Your task to perform on an android device: turn on data saver in the chrome app Image 0: 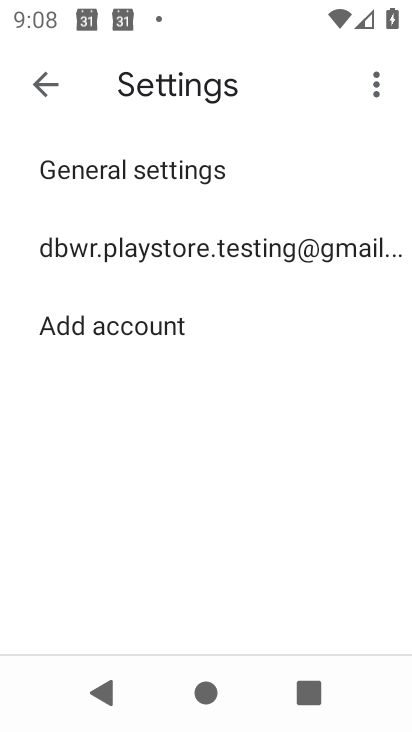
Step 0: press home button
Your task to perform on an android device: turn on data saver in the chrome app Image 1: 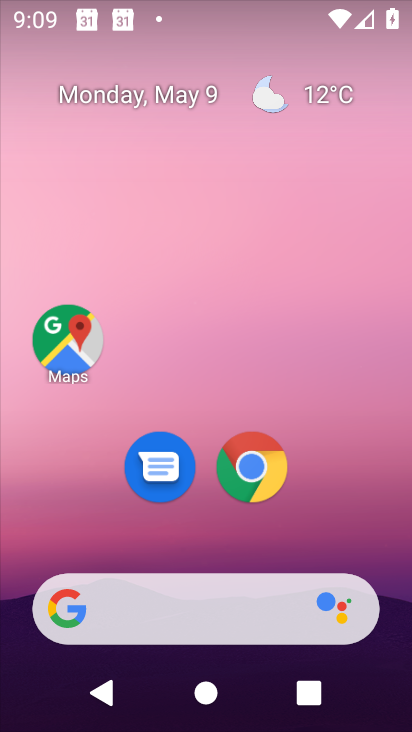
Step 1: click (263, 476)
Your task to perform on an android device: turn on data saver in the chrome app Image 2: 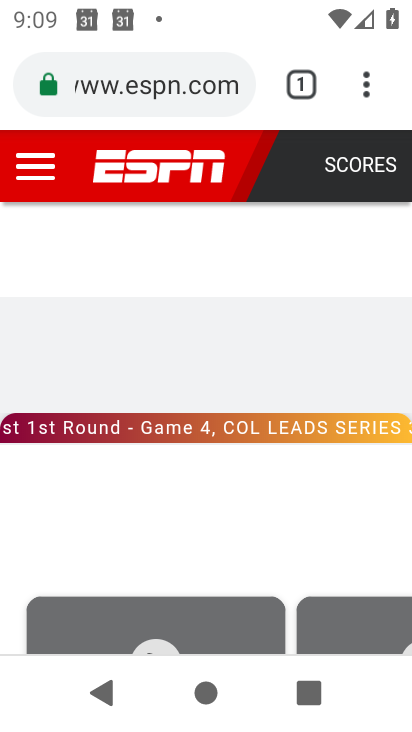
Step 2: click (369, 84)
Your task to perform on an android device: turn on data saver in the chrome app Image 3: 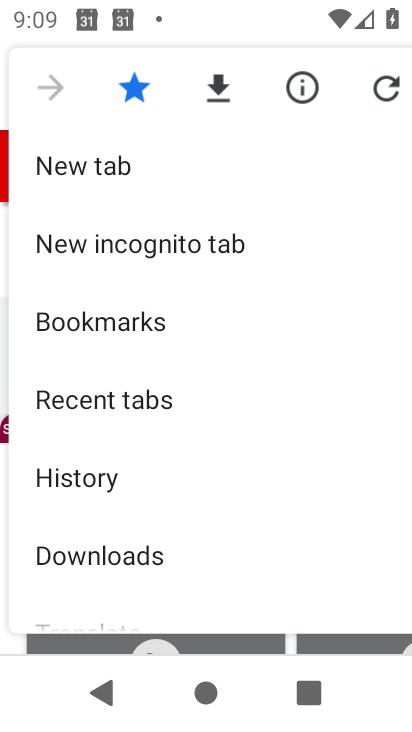
Step 3: drag from (226, 533) to (220, 131)
Your task to perform on an android device: turn on data saver in the chrome app Image 4: 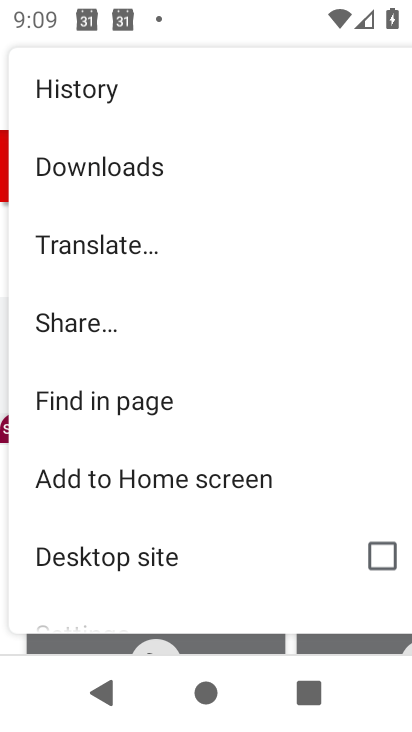
Step 4: drag from (203, 541) to (209, 131)
Your task to perform on an android device: turn on data saver in the chrome app Image 5: 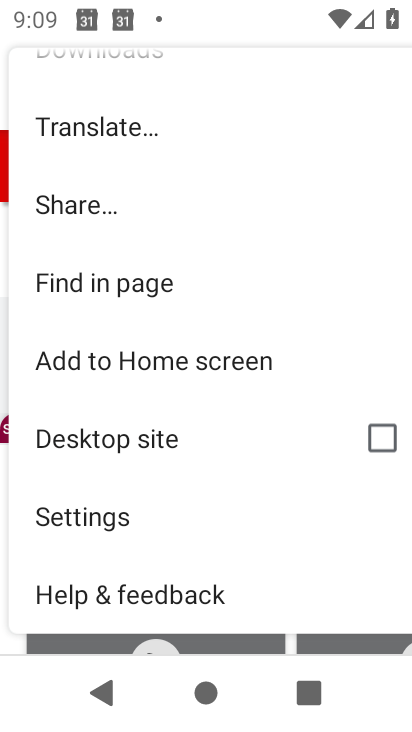
Step 5: click (98, 517)
Your task to perform on an android device: turn on data saver in the chrome app Image 6: 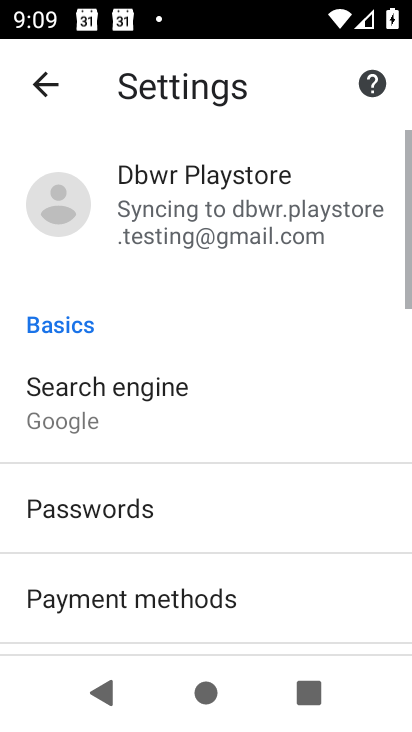
Step 6: drag from (208, 543) to (198, 126)
Your task to perform on an android device: turn on data saver in the chrome app Image 7: 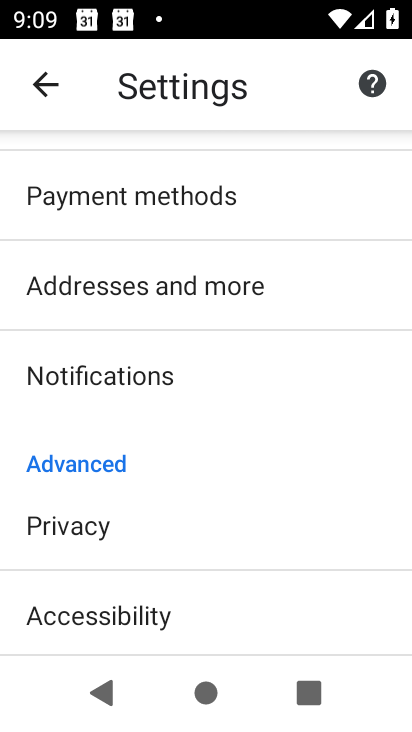
Step 7: drag from (177, 470) to (181, 114)
Your task to perform on an android device: turn on data saver in the chrome app Image 8: 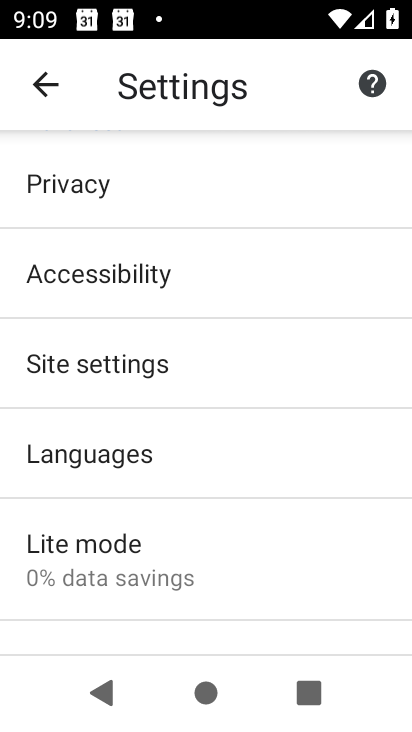
Step 8: click (109, 547)
Your task to perform on an android device: turn on data saver in the chrome app Image 9: 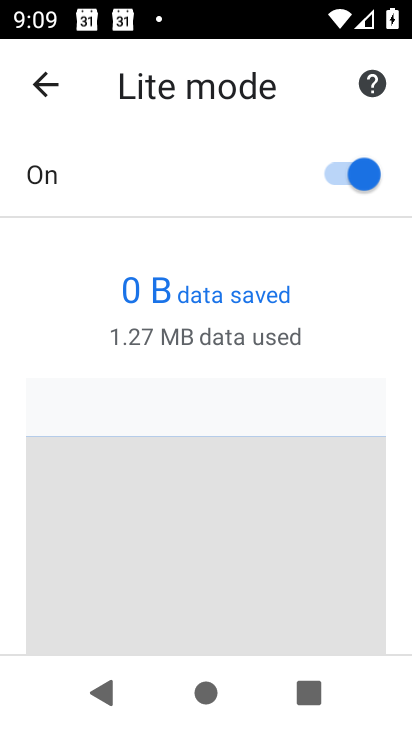
Step 9: task complete